Your task to perform on an android device: Show me popular games on the Play Store Image 0: 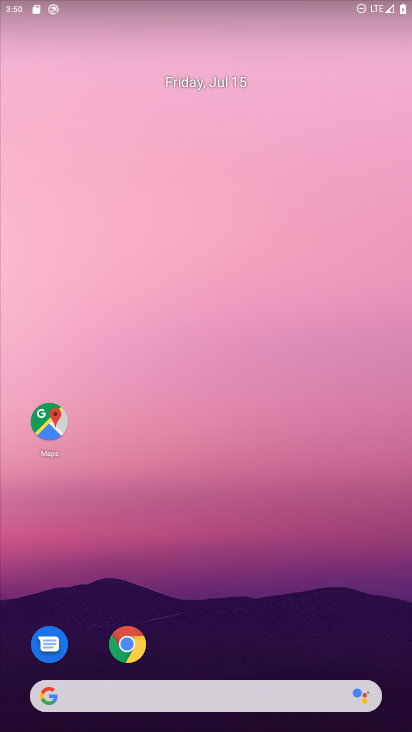
Step 0: press home button
Your task to perform on an android device: Show me popular games on the Play Store Image 1: 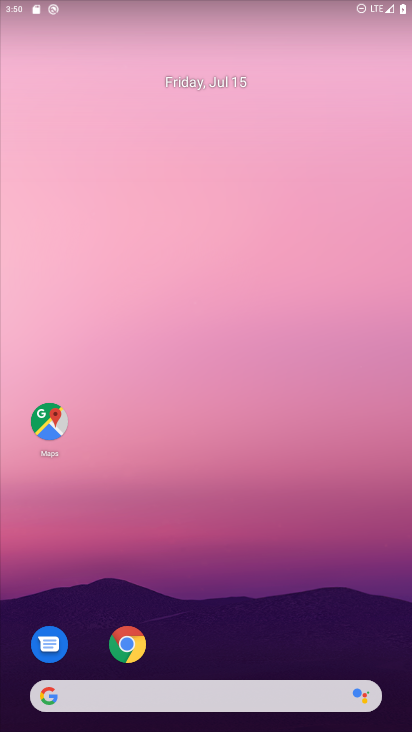
Step 1: drag from (13, 624) to (199, 103)
Your task to perform on an android device: Show me popular games on the Play Store Image 2: 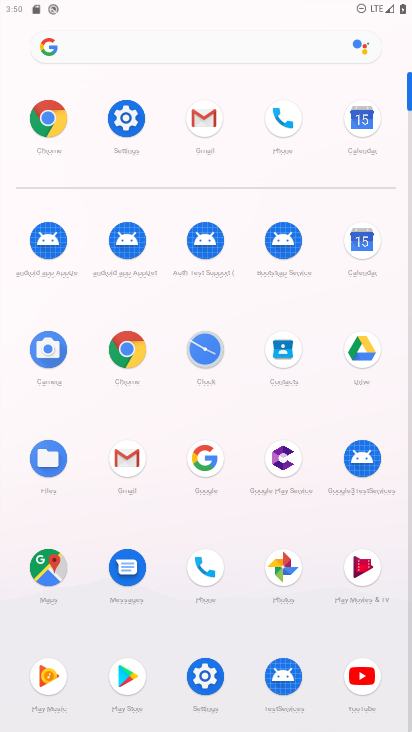
Step 2: click (114, 676)
Your task to perform on an android device: Show me popular games on the Play Store Image 3: 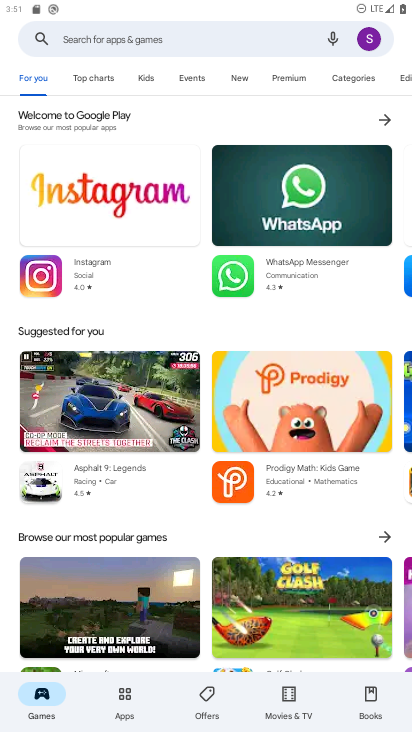
Step 3: drag from (346, 67) to (112, 74)
Your task to perform on an android device: Show me popular games on the Play Store Image 4: 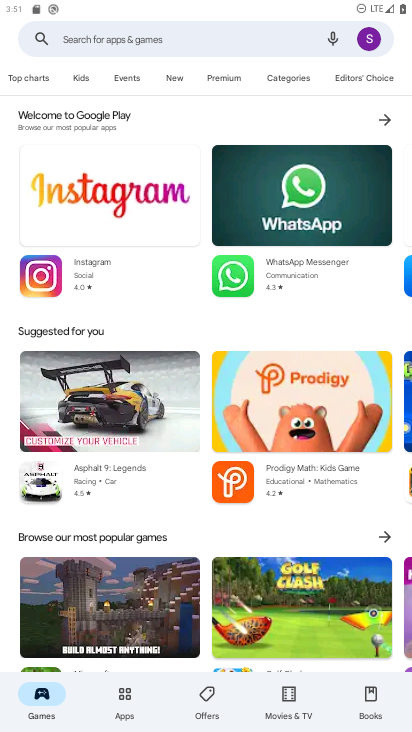
Step 4: drag from (337, 84) to (24, 66)
Your task to perform on an android device: Show me popular games on the Play Store Image 5: 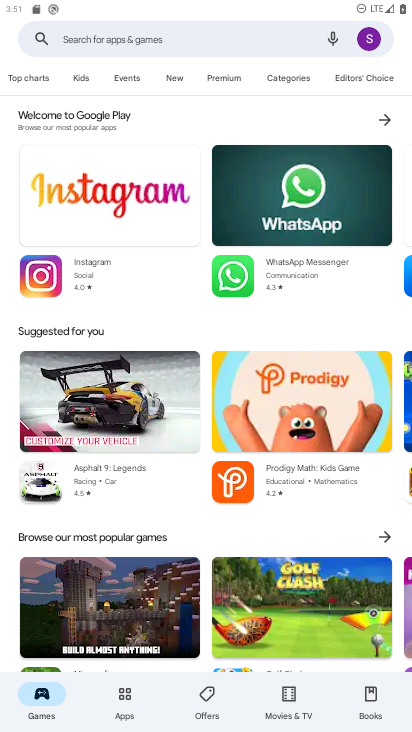
Step 5: click (85, 74)
Your task to perform on an android device: Show me popular games on the Play Store Image 6: 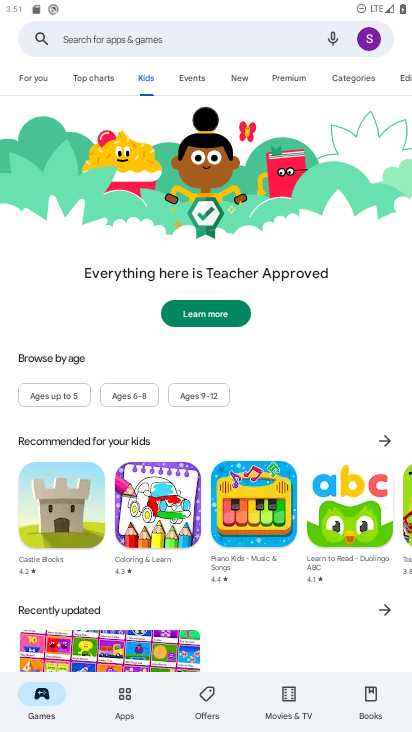
Step 6: task complete